Your task to perform on an android device: Do I have any events today? Image 0: 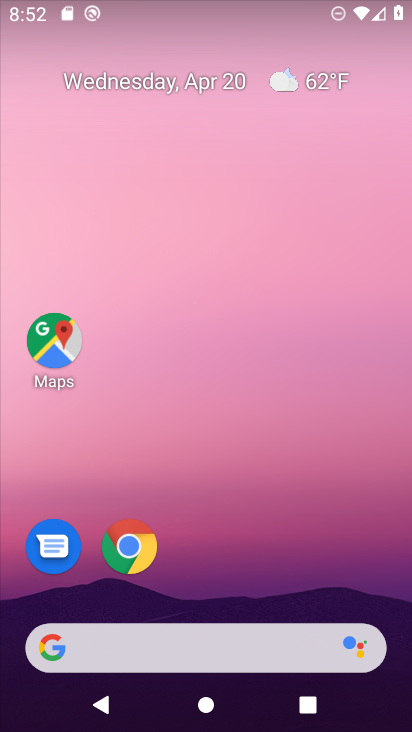
Step 0: drag from (307, 528) to (294, 126)
Your task to perform on an android device: Do I have any events today? Image 1: 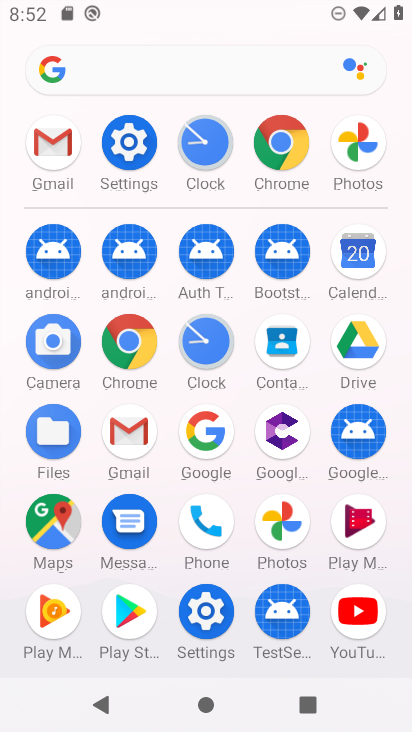
Step 1: click (355, 256)
Your task to perform on an android device: Do I have any events today? Image 2: 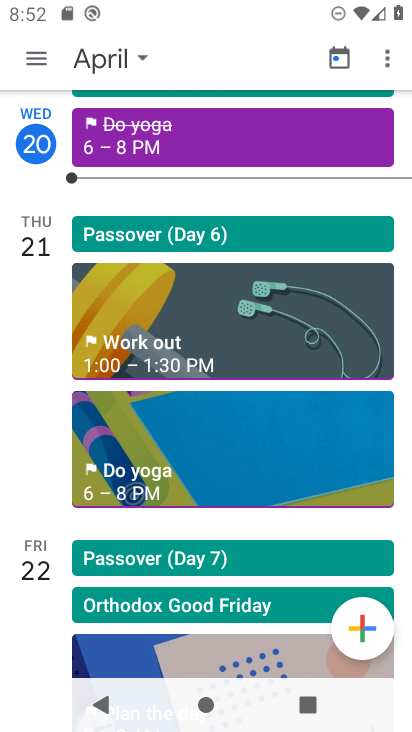
Step 2: click (42, 52)
Your task to perform on an android device: Do I have any events today? Image 3: 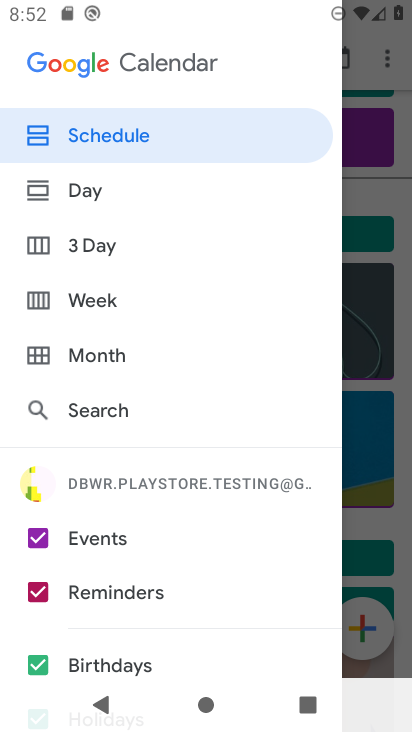
Step 3: click (68, 180)
Your task to perform on an android device: Do I have any events today? Image 4: 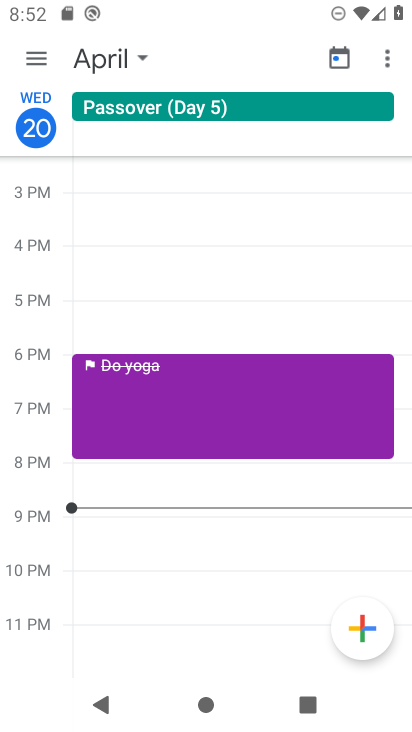
Step 4: task complete